Your task to perform on an android device: clear history in the chrome app Image 0: 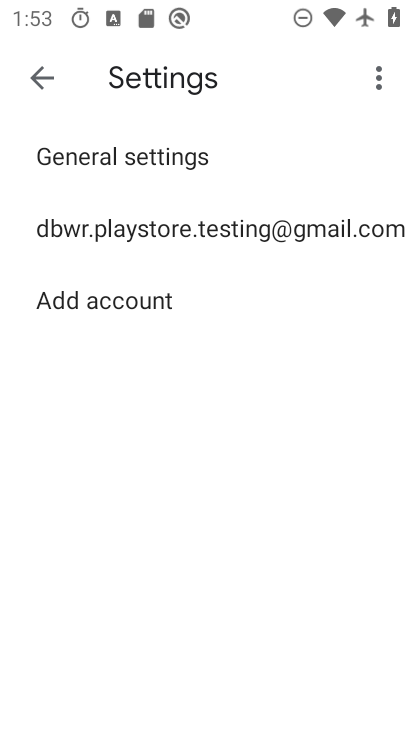
Step 0: press home button
Your task to perform on an android device: clear history in the chrome app Image 1: 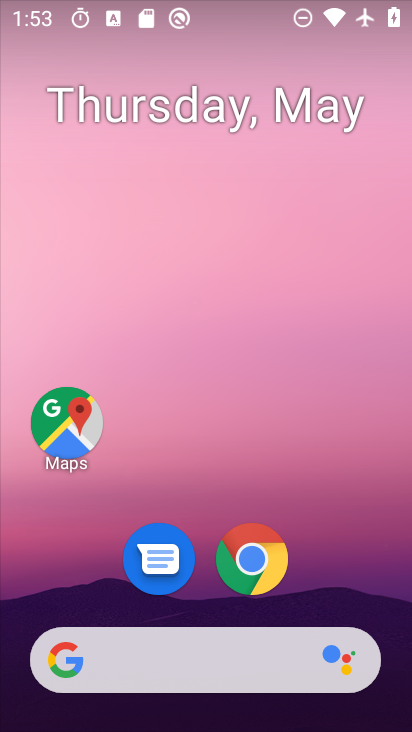
Step 1: drag from (163, 697) to (265, 144)
Your task to perform on an android device: clear history in the chrome app Image 2: 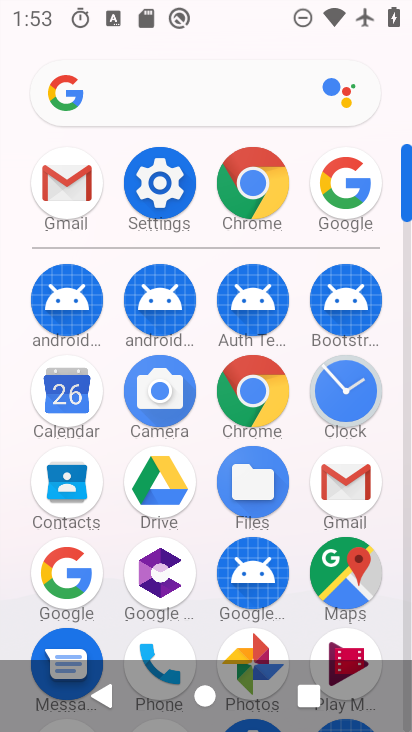
Step 2: click (268, 203)
Your task to perform on an android device: clear history in the chrome app Image 3: 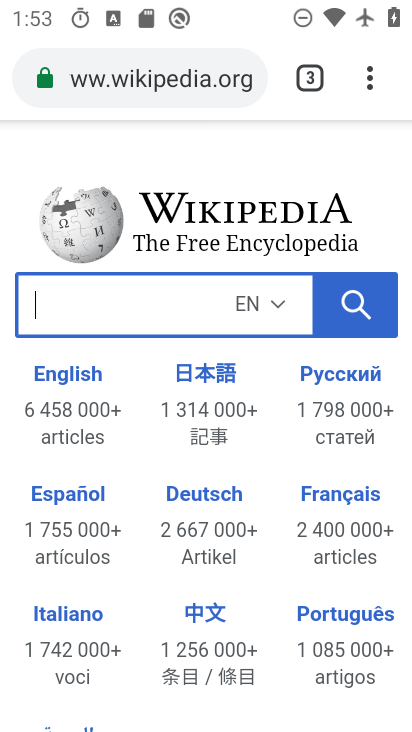
Step 3: click (366, 79)
Your task to perform on an android device: clear history in the chrome app Image 4: 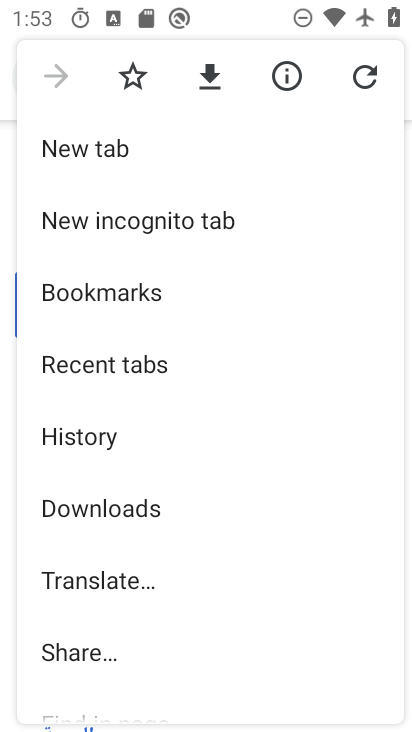
Step 4: click (83, 451)
Your task to perform on an android device: clear history in the chrome app Image 5: 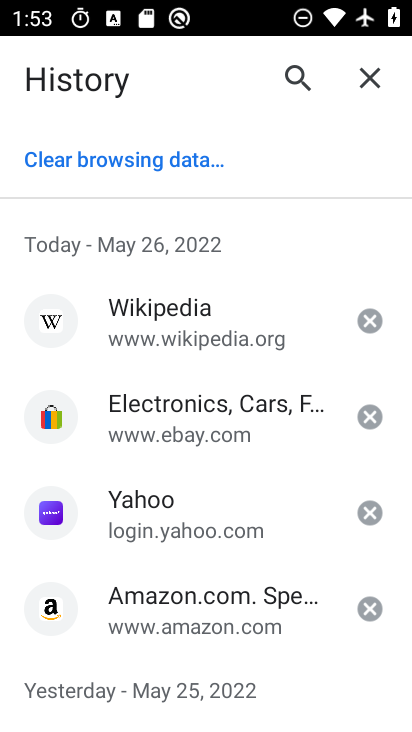
Step 5: click (141, 158)
Your task to perform on an android device: clear history in the chrome app Image 6: 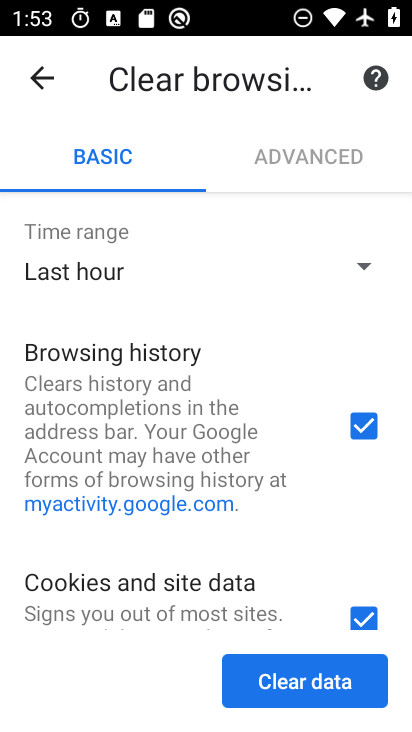
Step 6: click (370, 620)
Your task to perform on an android device: clear history in the chrome app Image 7: 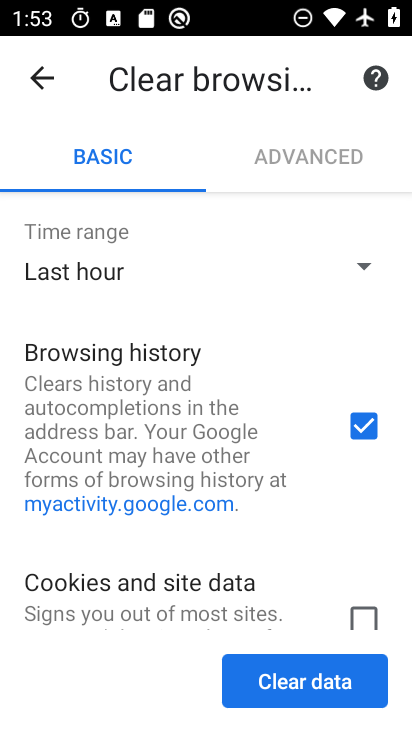
Step 7: click (314, 686)
Your task to perform on an android device: clear history in the chrome app Image 8: 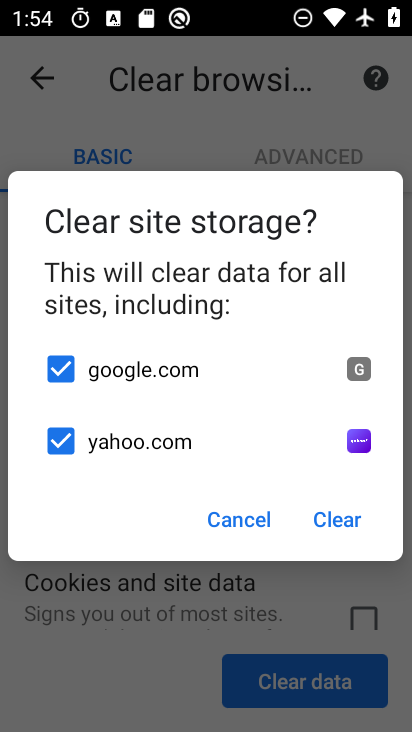
Step 8: click (335, 522)
Your task to perform on an android device: clear history in the chrome app Image 9: 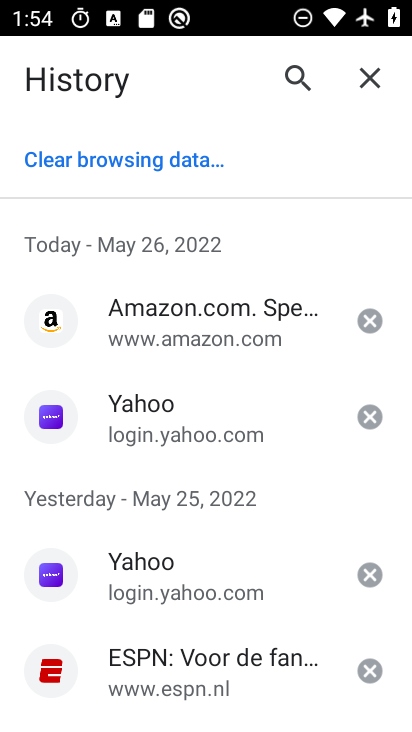
Step 9: task complete